Your task to perform on an android device: open wifi settings Image 0: 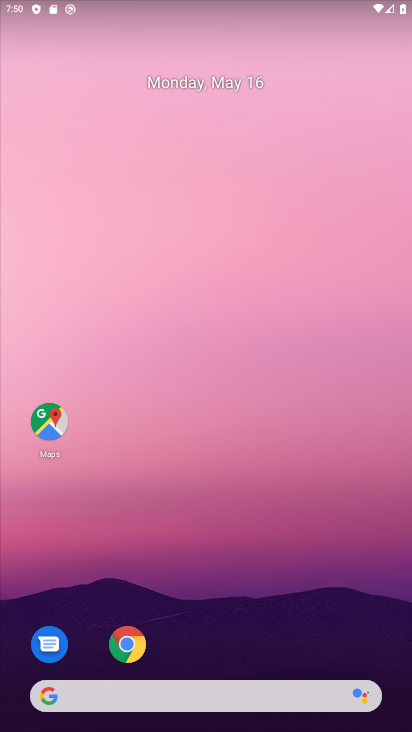
Step 0: drag from (285, 677) to (327, 94)
Your task to perform on an android device: open wifi settings Image 1: 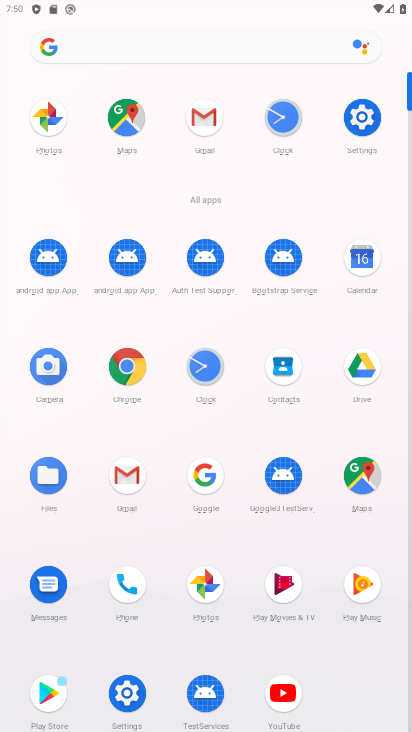
Step 1: click (360, 126)
Your task to perform on an android device: open wifi settings Image 2: 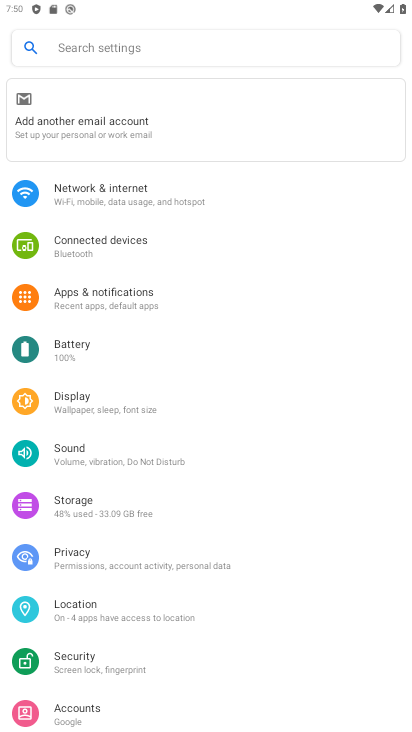
Step 2: click (135, 198)
Your task to perform on an android device: open wifi settings Image 3: 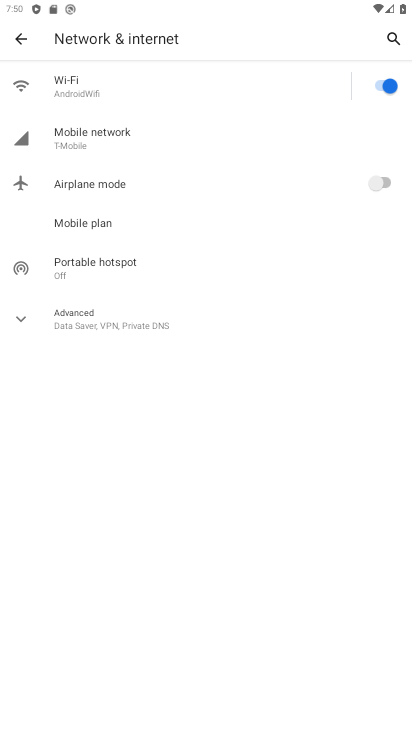
Step 3: click (142, 85)
Your task to perform on an android device: open wifi settings Image 4: 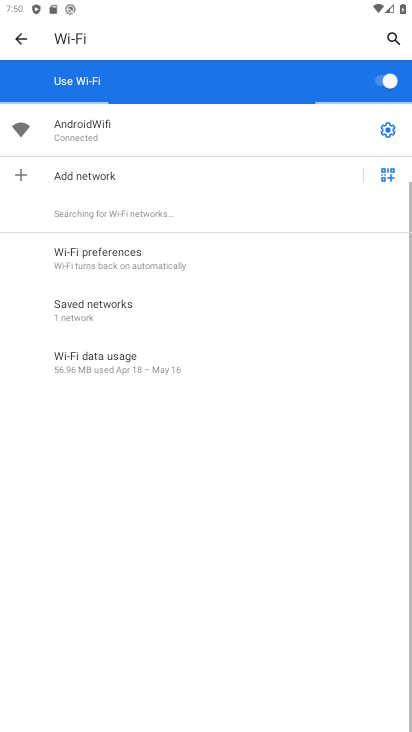
Step 4: task complete